Your task to perform on an android device: choose inbox layout in the gmail app Image 0: 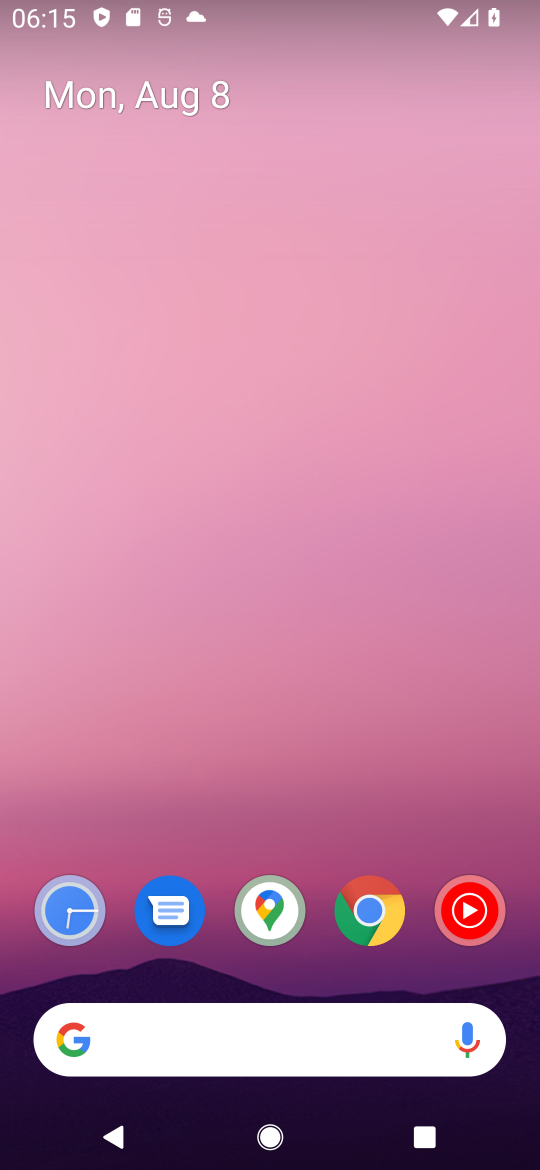
Step 0: drag from (212, 1047) to (277, 192)
Your task to perform on an android device: choose inbox layout in the gmail app Image 1: 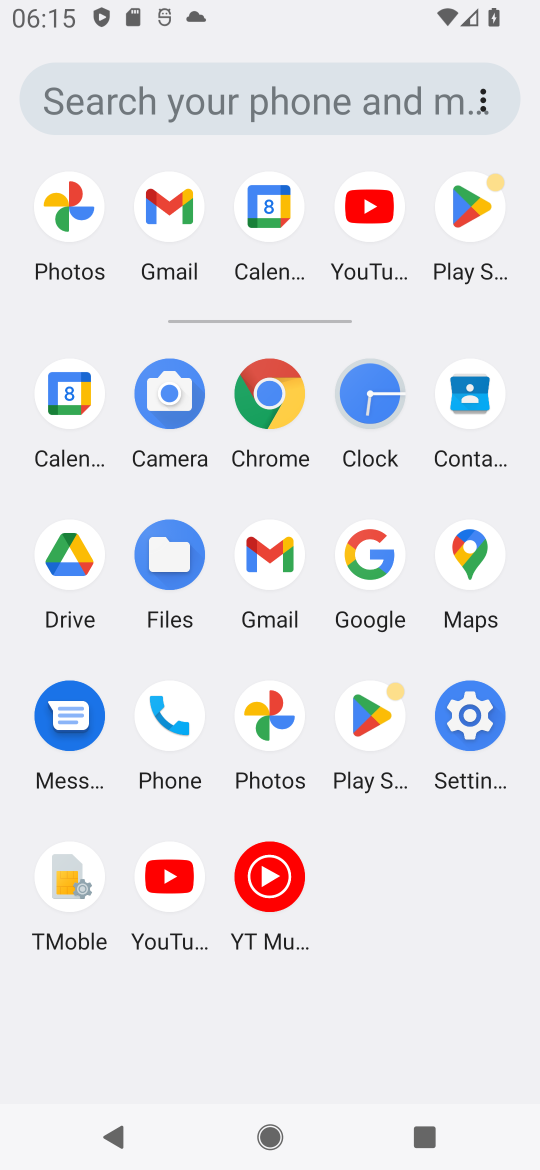
Step 1: click (268, 556)
Your task to perform on an android device: choose inbox layout in the gmail app Image 2: 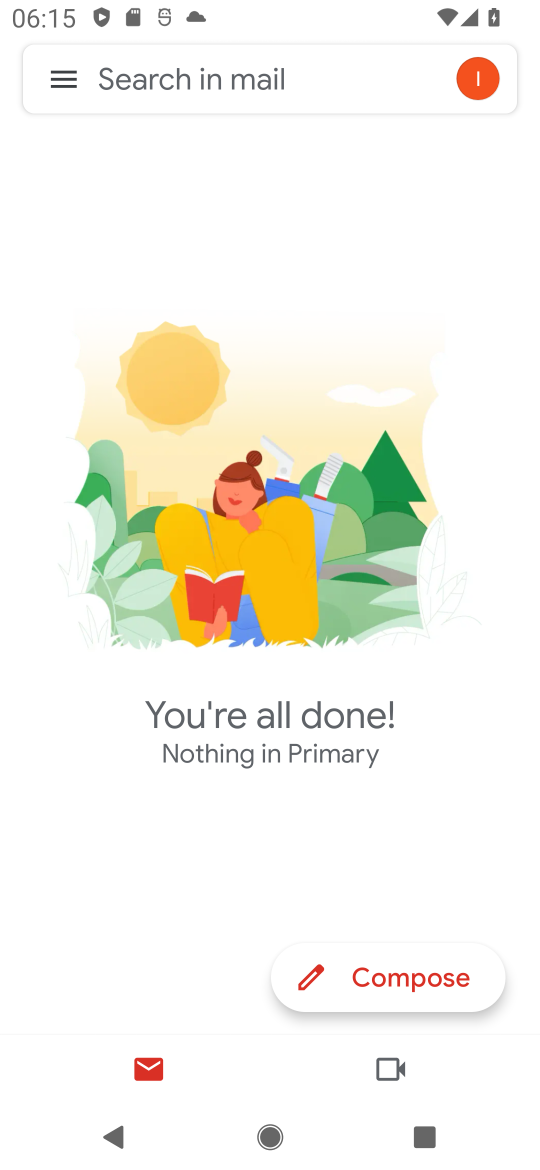
Step 2: click (57, 77)
Your task to perform on an android device: choose inbox layout in the gmail app Image 3: 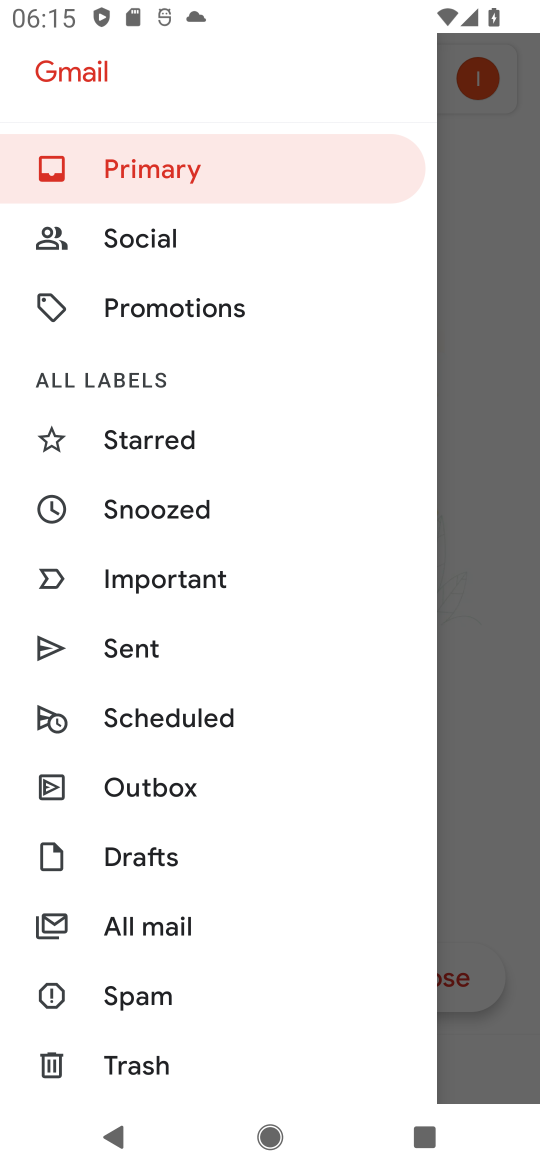
Step 3: drag from (134, 723) to (213, 583)
Your task to perform on an android device: choose inbox layout in the gmail app Image 4: 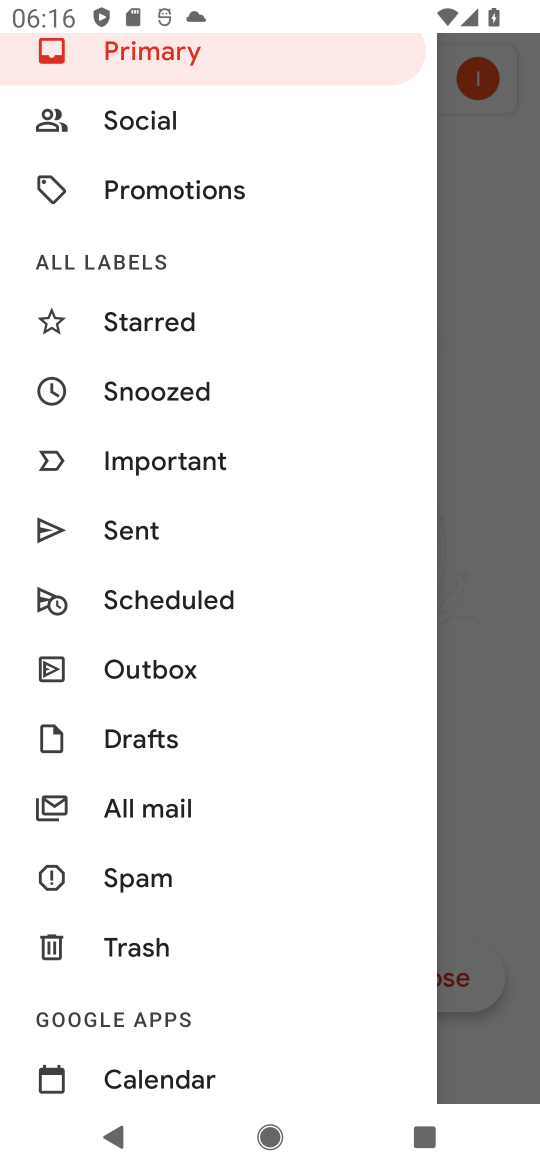
Step 4: drag from (172, 987) to (253, 828)
Your task to perform on an android device: choose inbox layout in the gmail app Image 5: 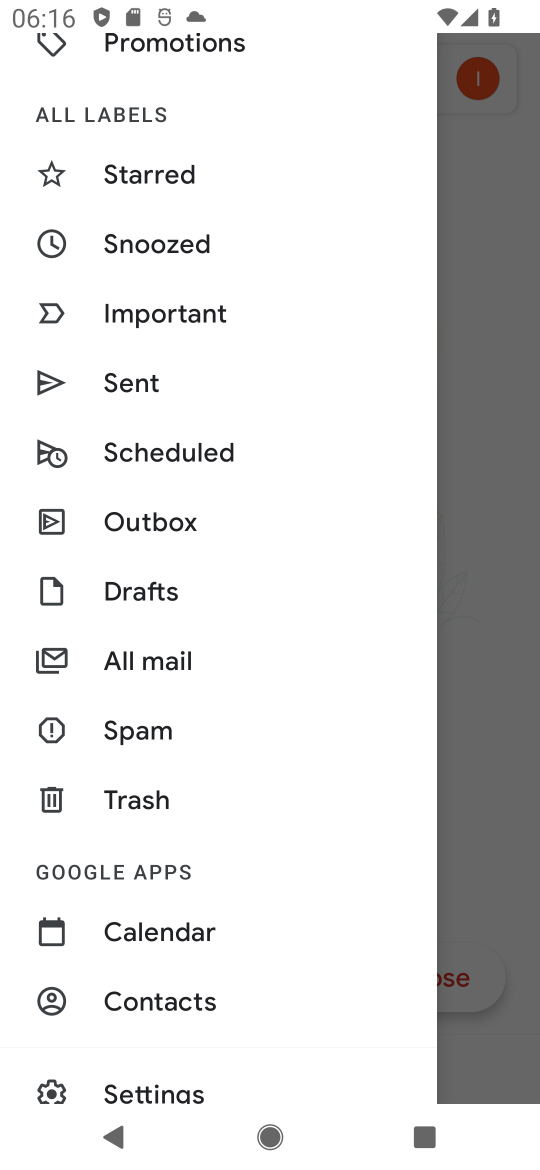
Step 5: drag from (155, 1034) to (258, 837)
Your task to perform on an android device: choose inbox layout in the gmail app Image 6: 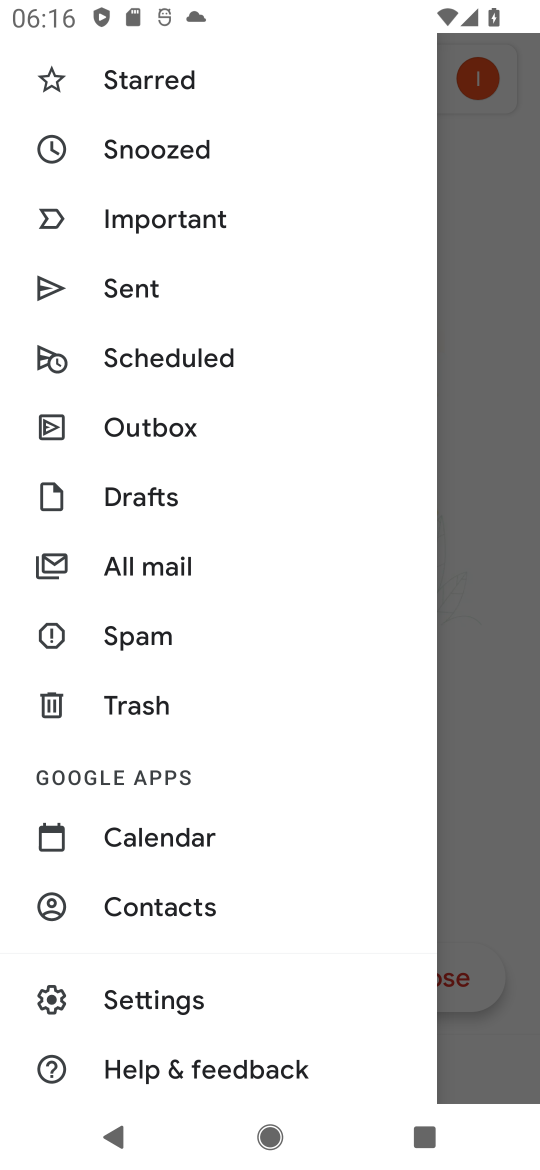
Step 6: click (133, 991)
Your task to perform on an android device: choose inbox layout in the gmail app Image 7: 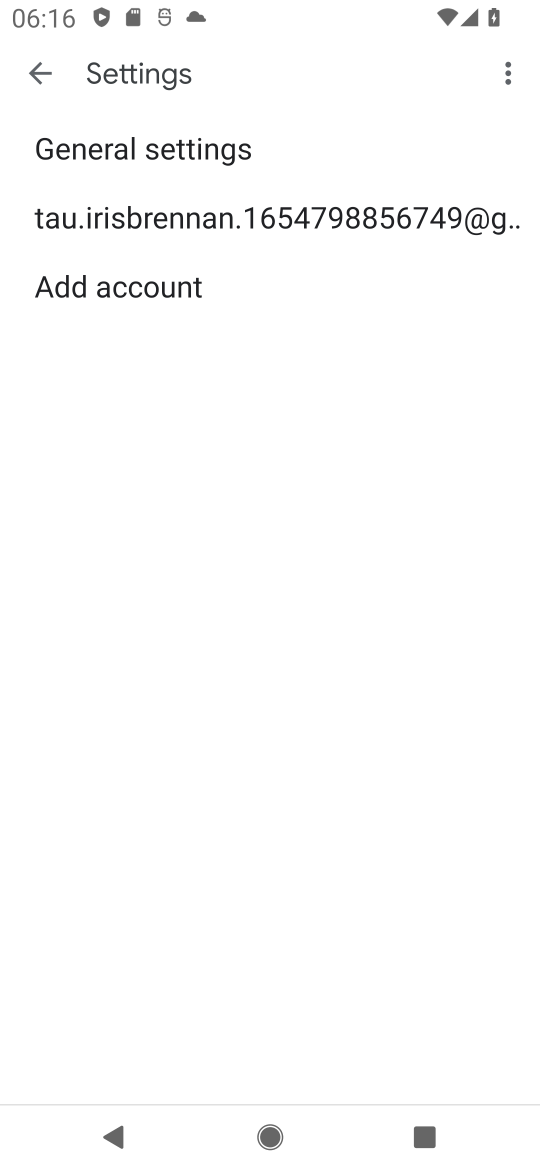
Step 7: click (235, 201)
Your task to perform on an android device: choose inbox layout in the gmail app Image 8: 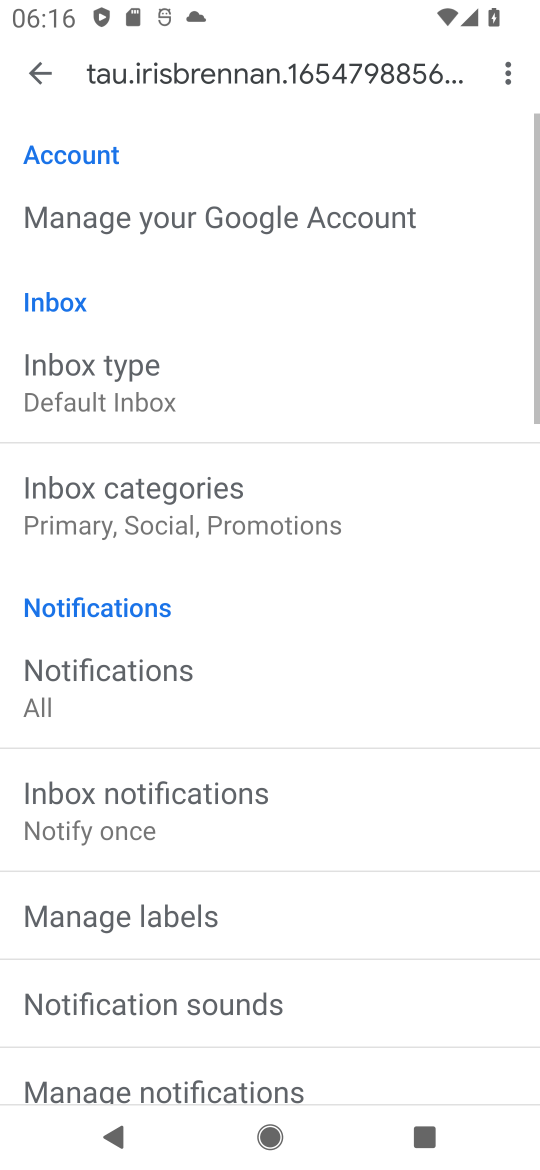
Step 8: click (103, 399)
Your task to perform on an android device: choose inbox layout in the gmail app Image 9: 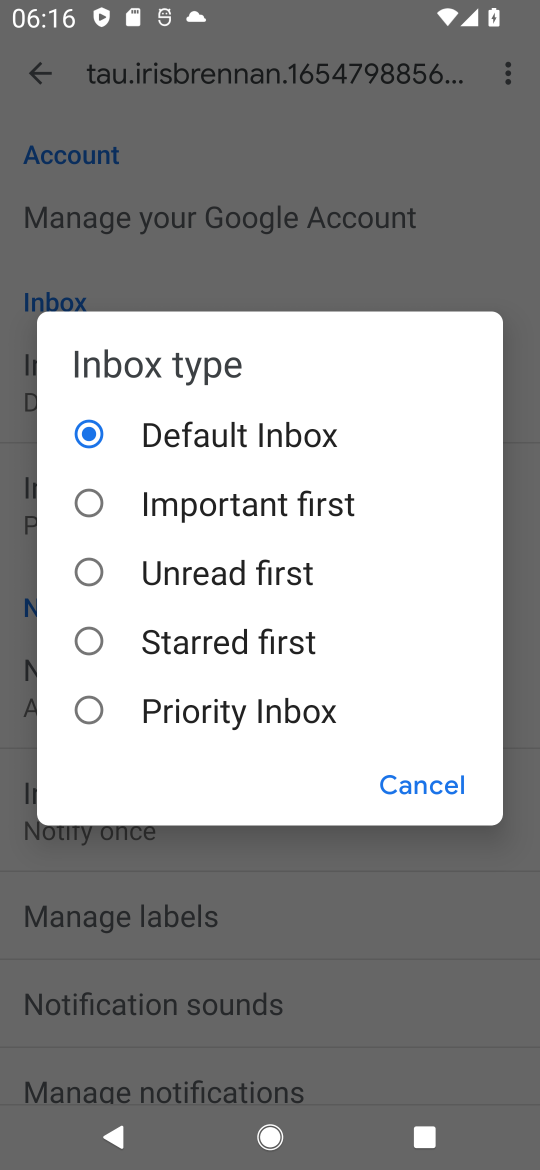
Step 9: click (91, 493)
Your task to perform on an android device: choose inbox layout in the gmail app Image 10: 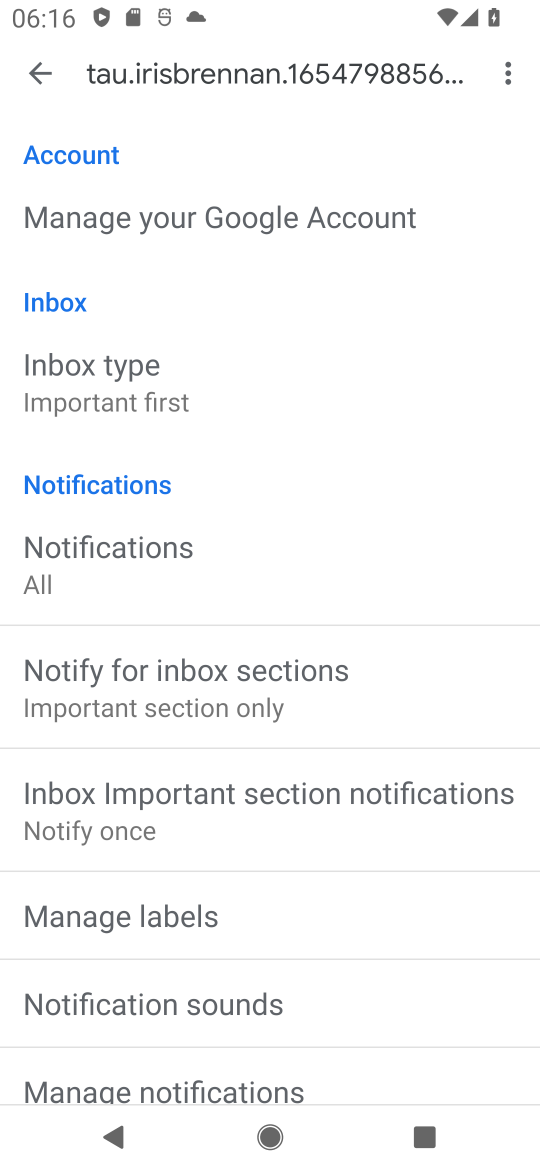
Step 10: task complete